Your task to perform on an android device: Go to settings Image 0: 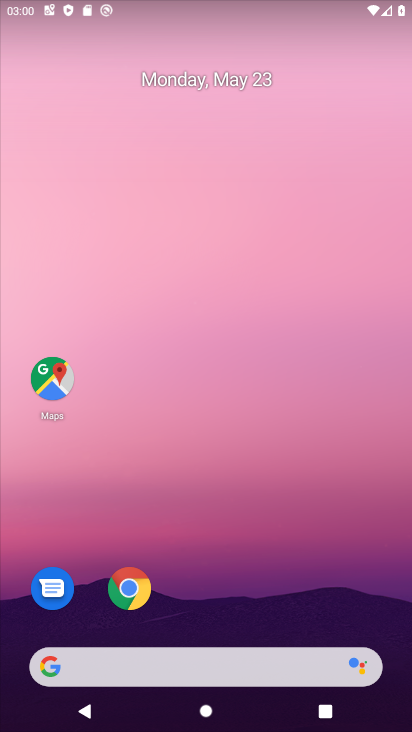
Step 0: drag from (221, 727) to (203, 98)
Your task to perform on an android device: Go to settings Image 1: 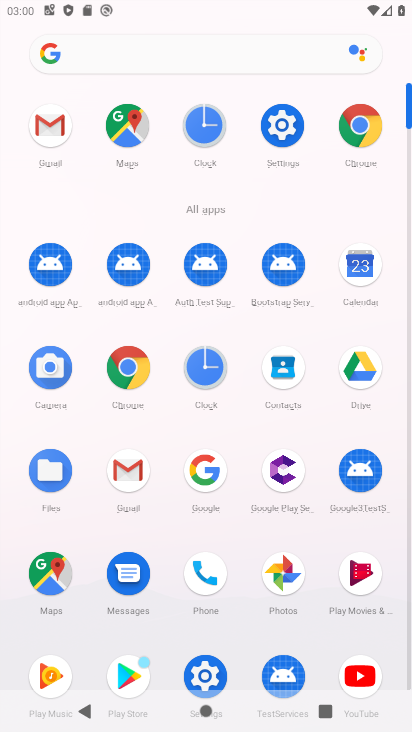
Step 1: click (275, 115)
Your task to perform on an android device: Go to settings Image 2: 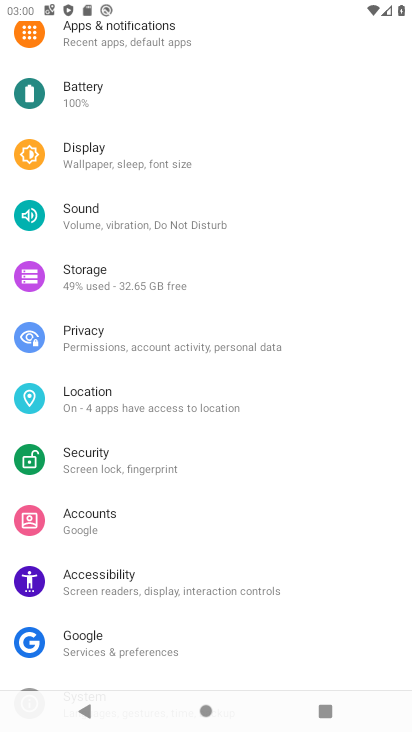
Step 2: task complete